Your task to perform on an android device: Open Google Image 0: 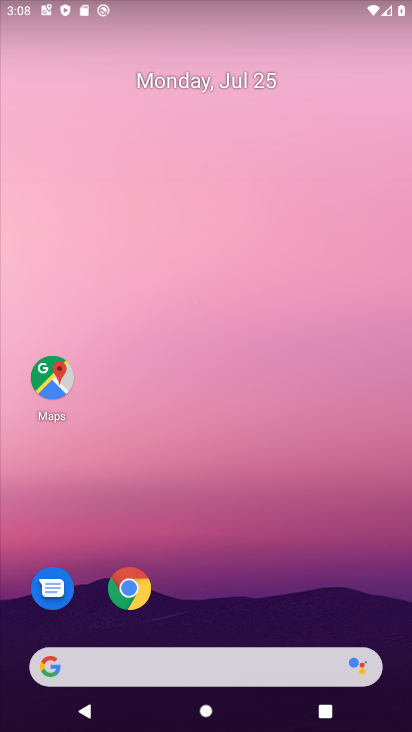
Step 0: drag from (198, 608) to (182, 160)
Your task to perform on an android device: Open Google Image 1: 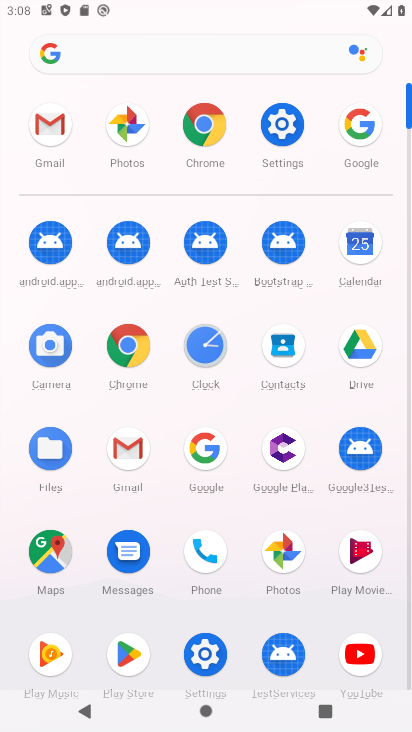
Step 1: click (194, 466)
Your task to perform on an android device: Open Google Image 2: 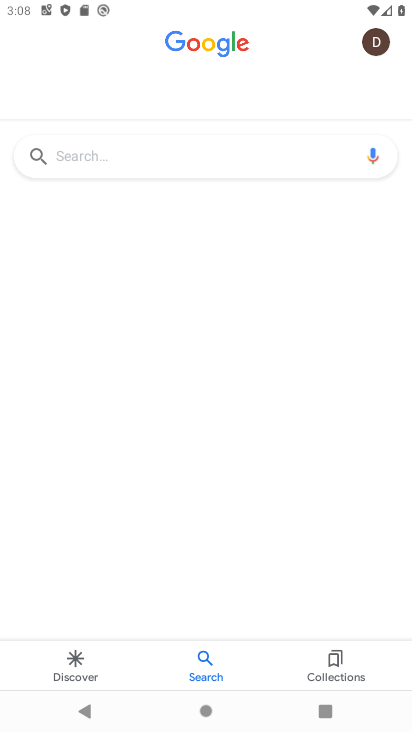
Step 2: task complete